Your task to perform on an android device: Clear the cart on amazon. Search for jbl charge 4 on amazon, select the first entry, add it to the cart, then select checkout. Image 0: 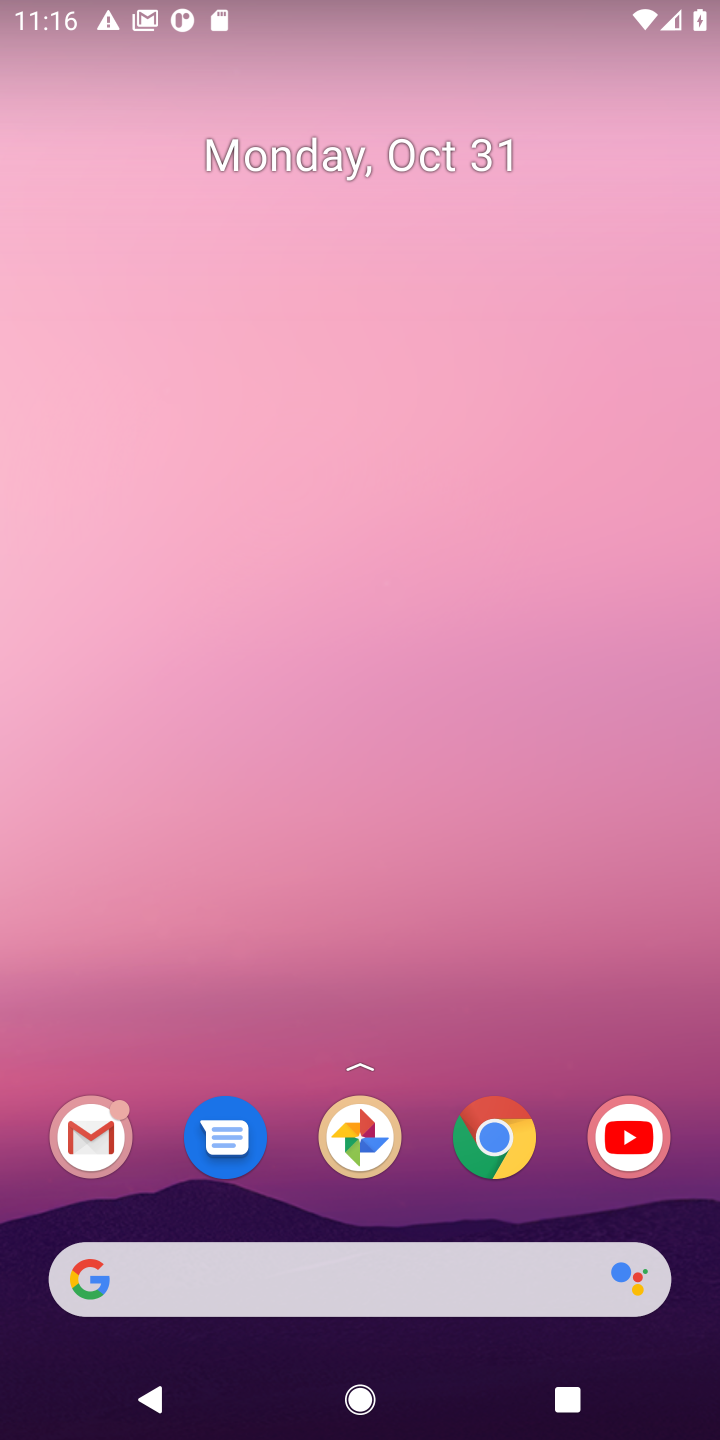
Step 0: drag from (364, 1300) to (405, 185)
Your task to perform on an android device: Clear the cart on amazon. Search for jbl charge 4 on amazon, select the first entry, add it to the cart, then select checkout. Image 1: 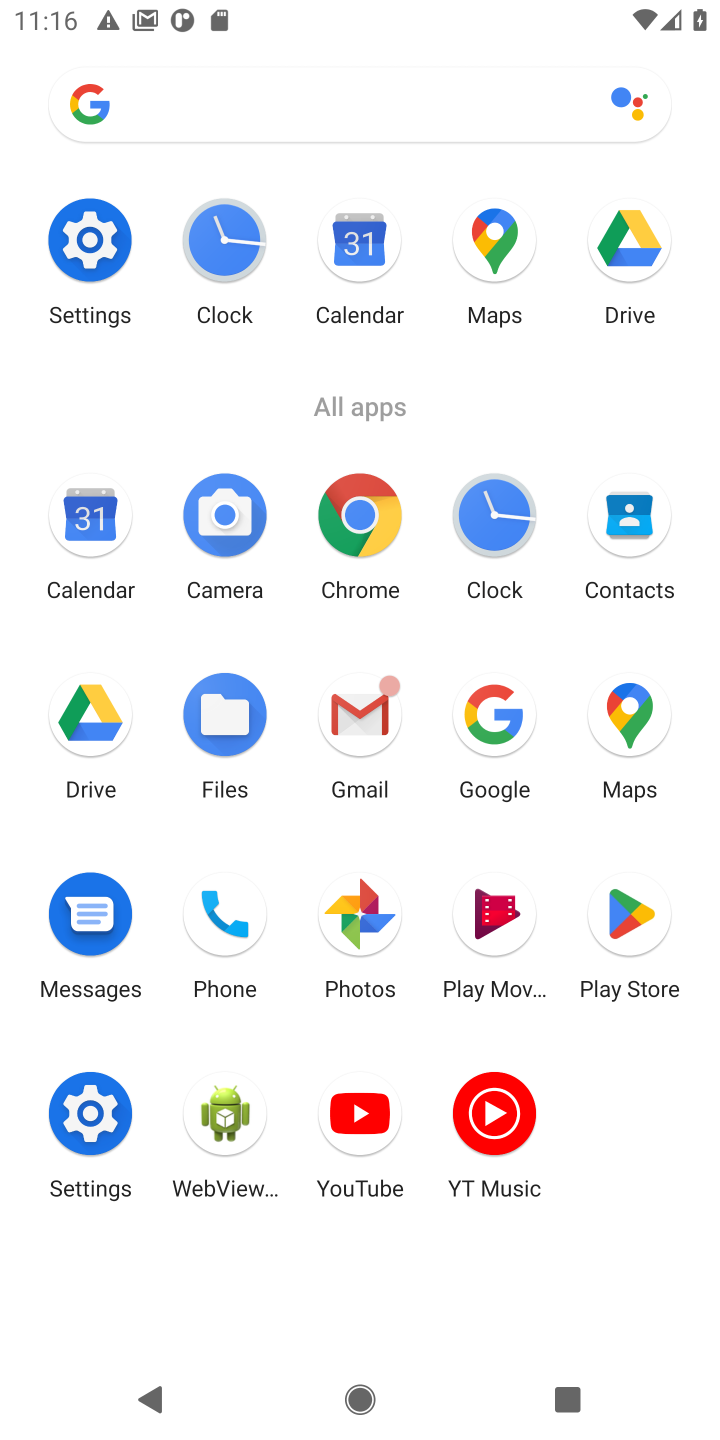
Step 1: click (505, 695)
Your task to perform on an android device: Clear the cart on amazon. Search for jbl charge 4 on amazon, select the first entry, add it to the cart, then select checkout. Image 2: 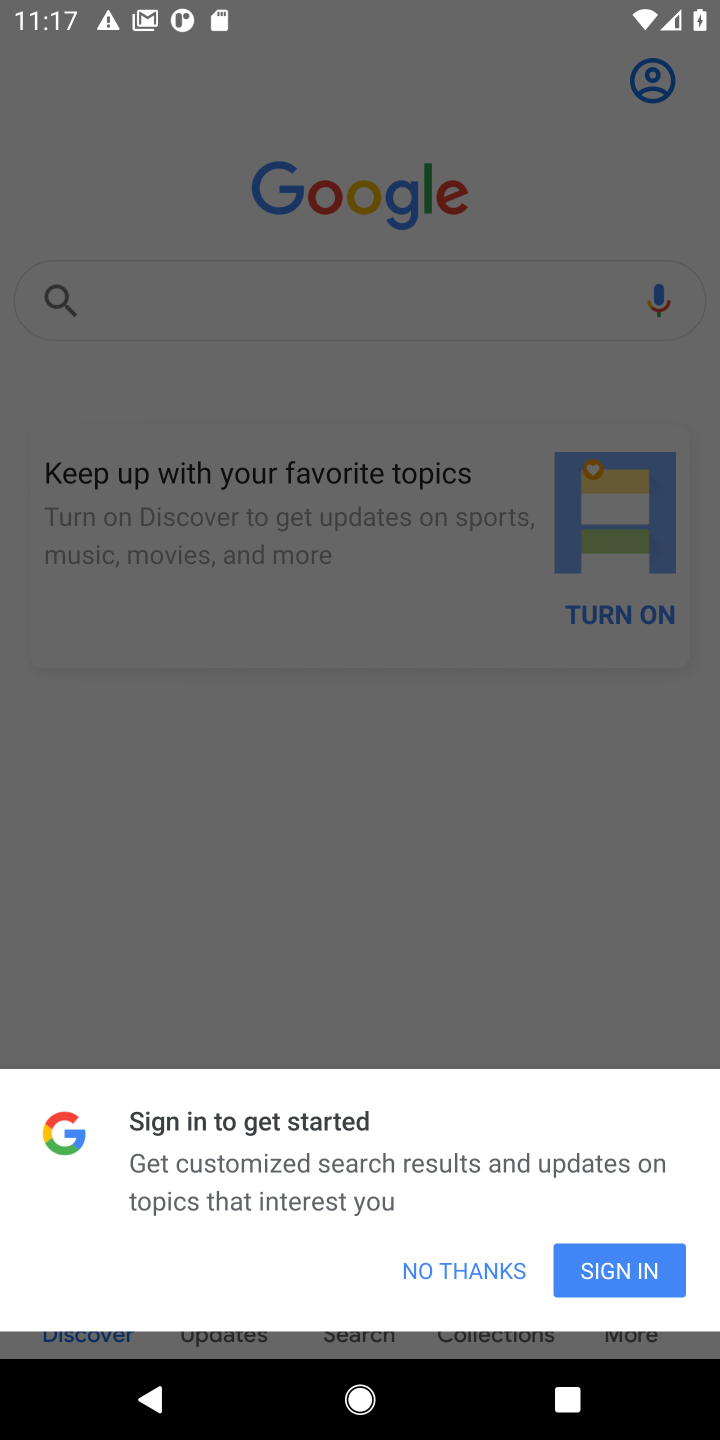
Step 2: click (452, 1260)
Your task to perform on an android device: Clear the cart on amazon. Search for jbl charge 4 on amazon, select the first entry, add it to the cart, then select checkout. Image 3: 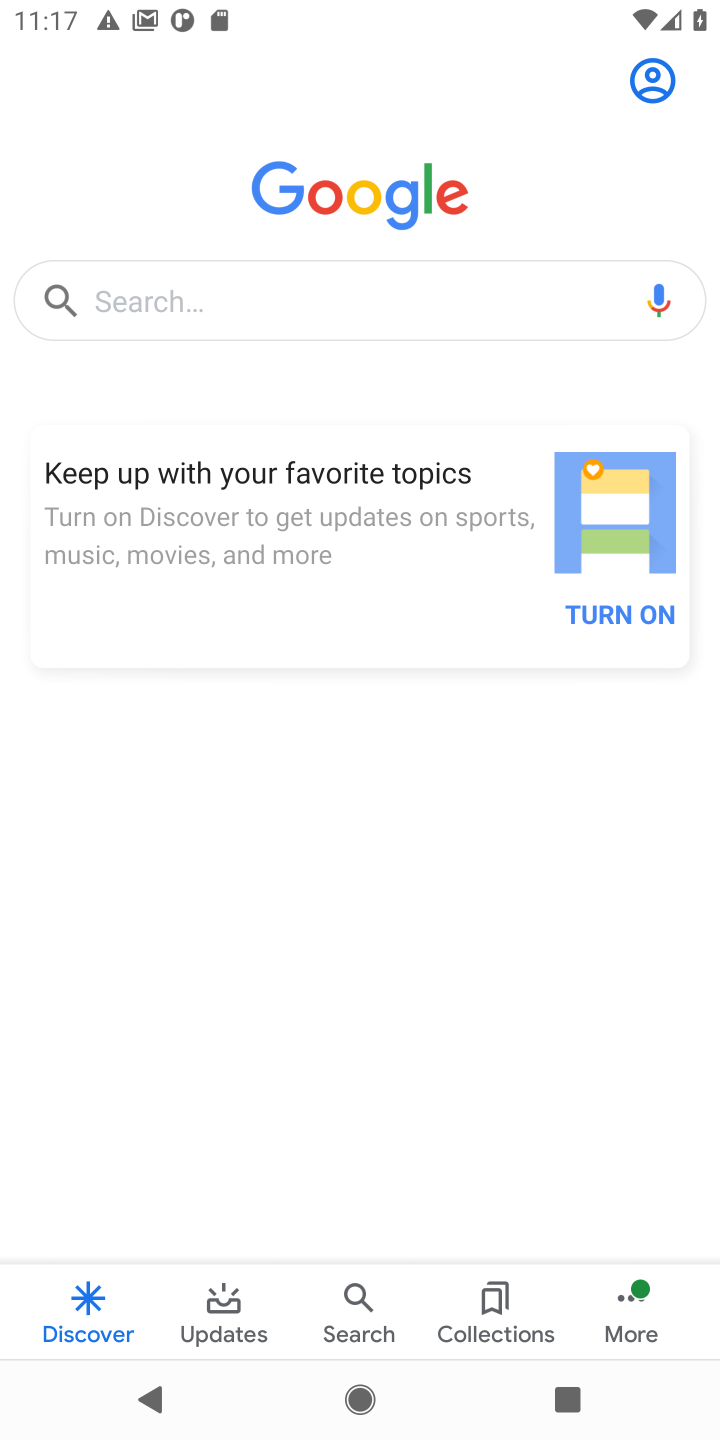
Step 3: click (230, 314)
Your task to perform on an android device: Clear the cart on amazon. Search for jbl charge 4 on amazon, select the first entry, add it to the cart, then select checkout. Image 4: 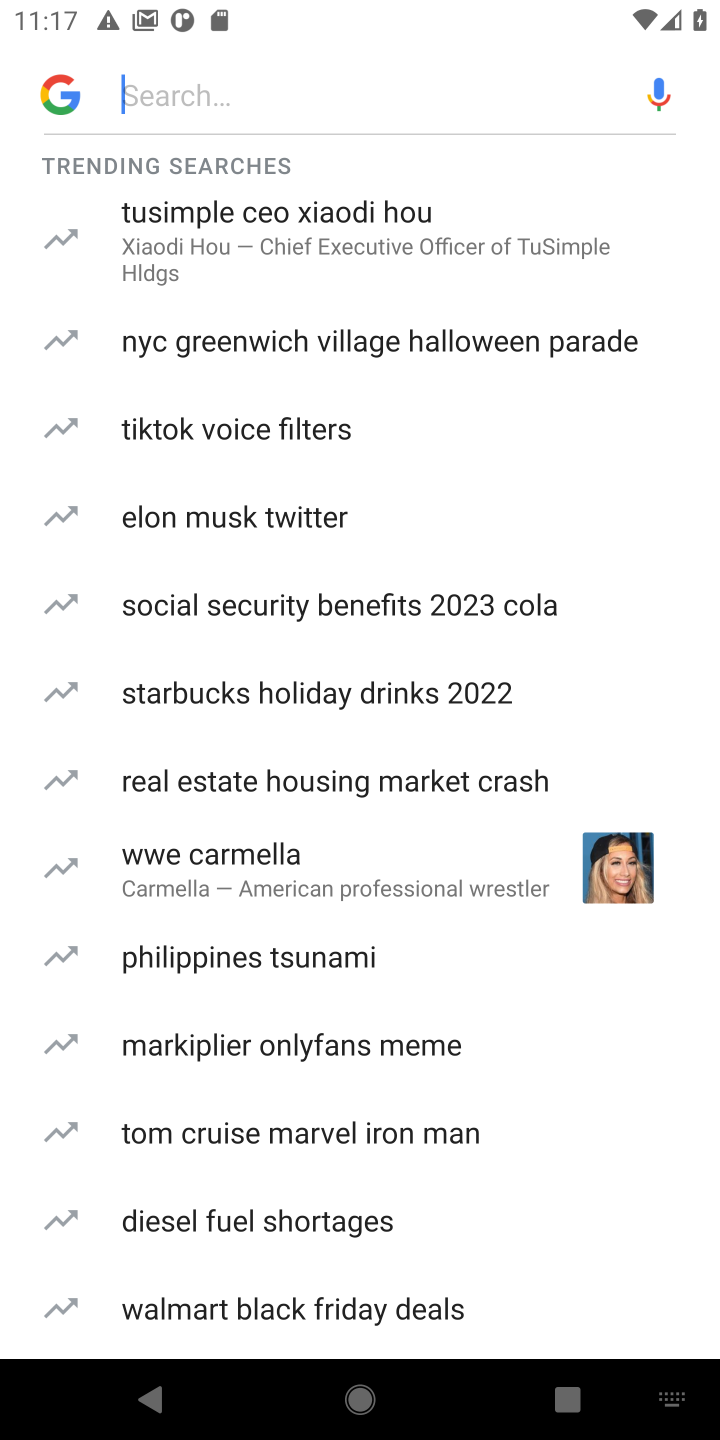
Step 4: type "amazon"
Your task to perform on an android device: Clear the cart on amazon. Search for jbl charge 4 on amazon, select the first entry, add it to the cart, then select checkout. Image 5: 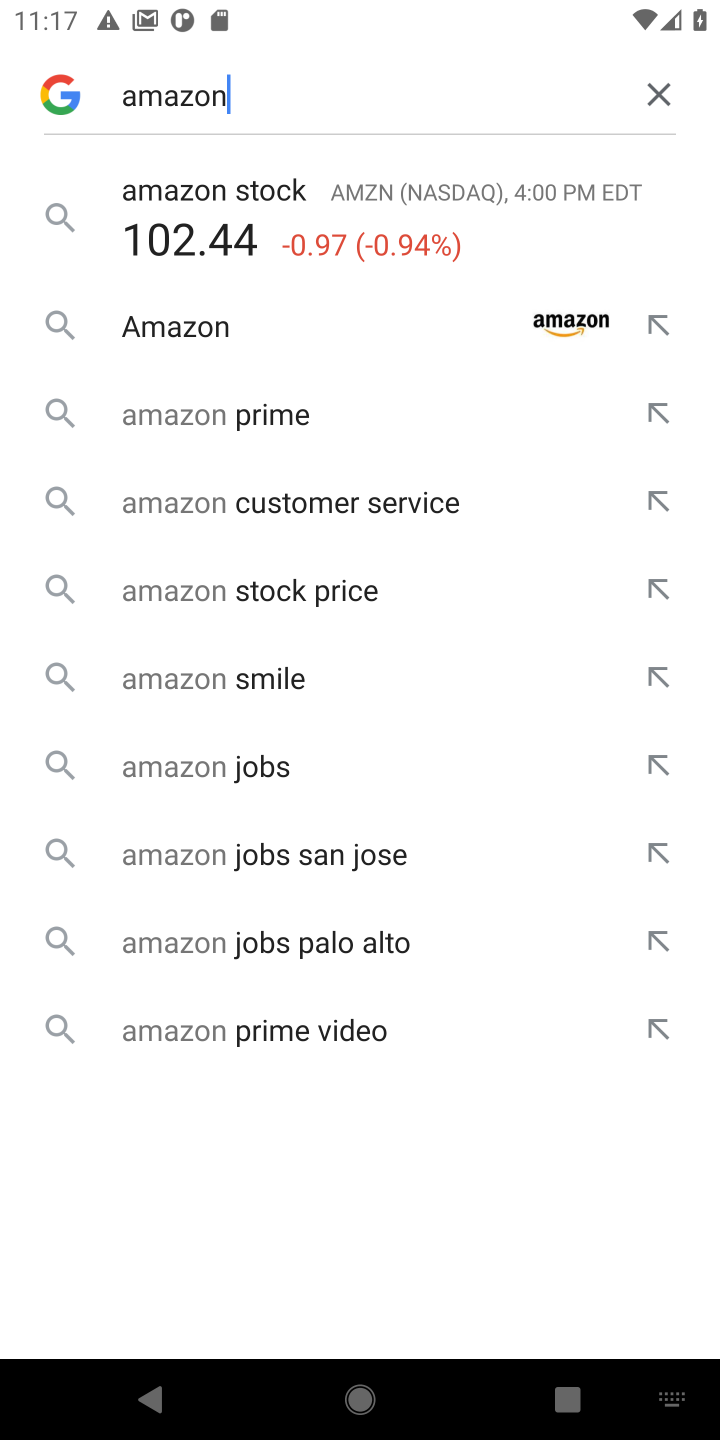
Step 5: click (186, 328)
Your task to perform on an android device: Clear the cart on amazon. Search for jbl charge 4 on amazon, select the first entry, add it to the cart, then select checkout. Image 6: 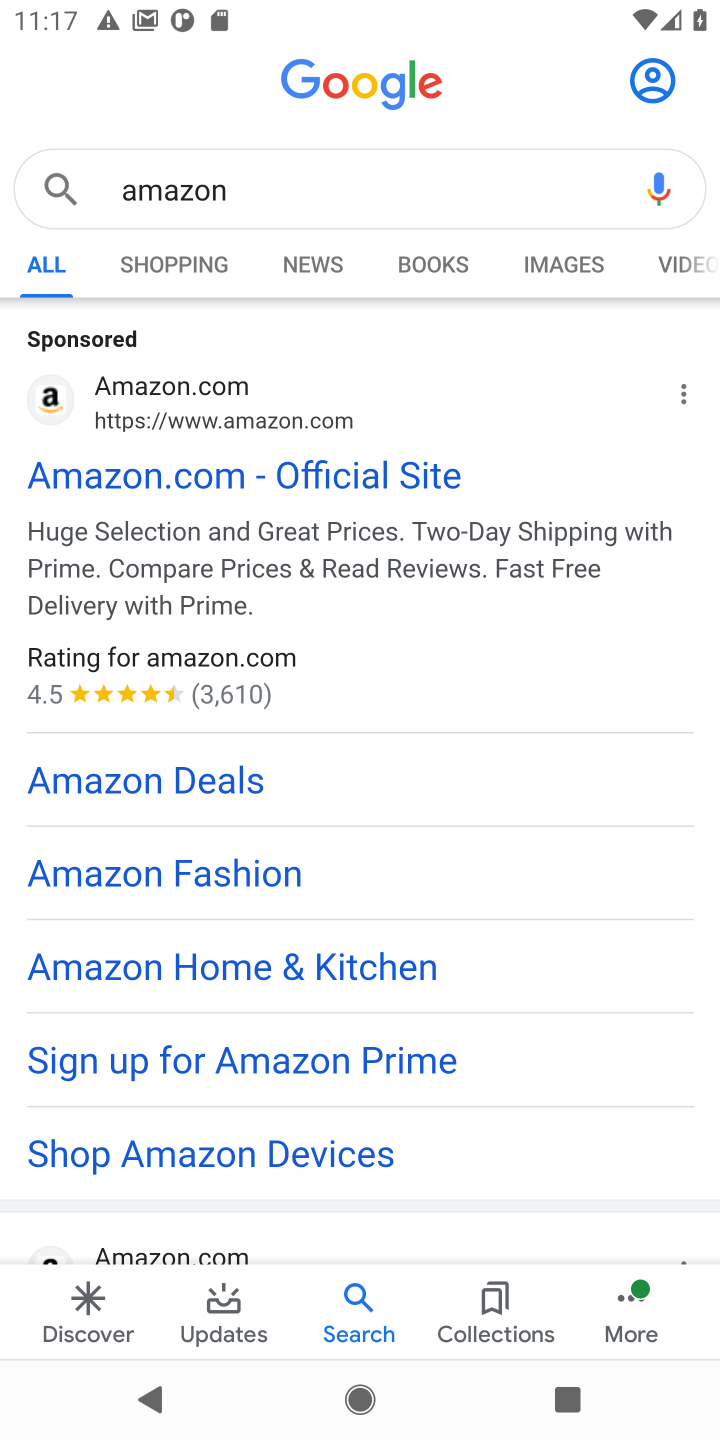
Step 6: click (197, 465)
Your task to perform on an android device: Clear the cart on amazon. Search for jbl charge 4 on amazon, select the first entry, add it to the cart, then select checkout. Image 7: 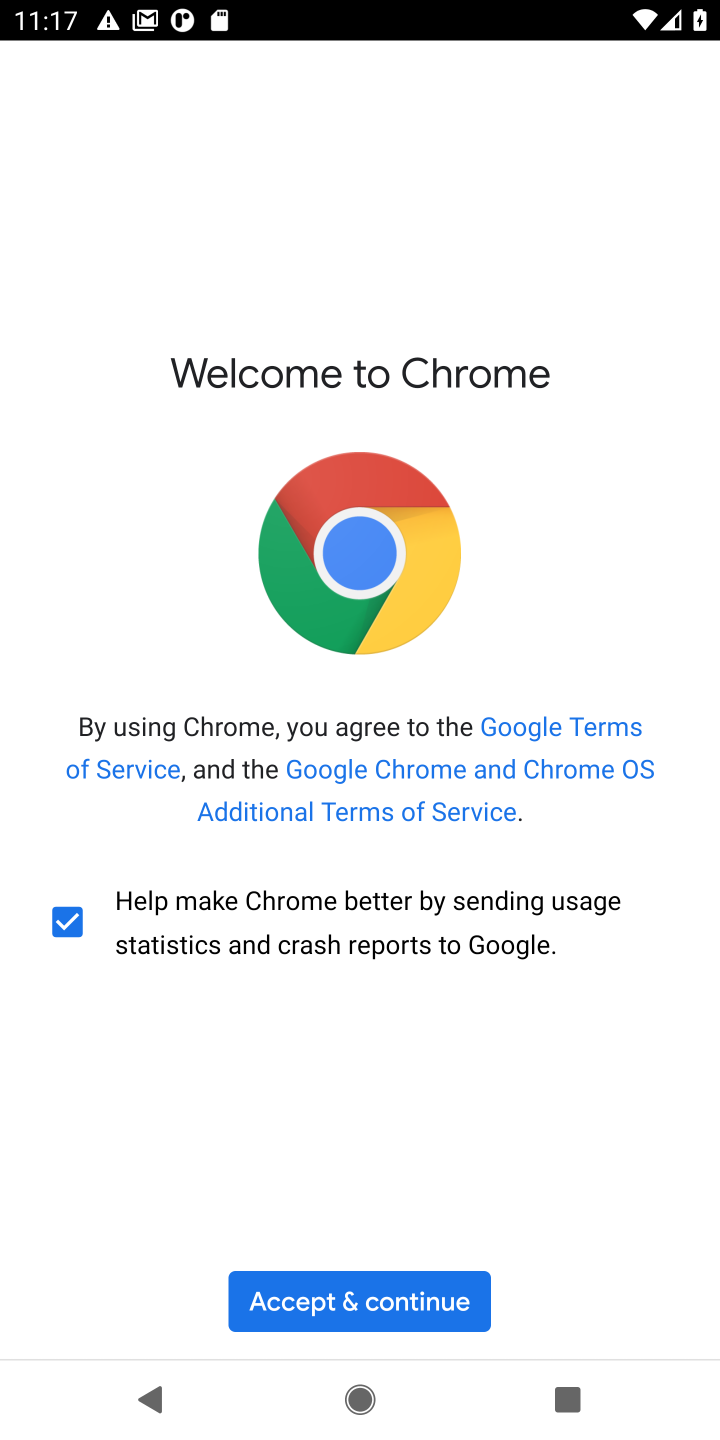
Step 7: click (448, 1298)
Your task to perform on an android device: Clear the cart on amazon. Search for jbl charge 4 on amazon, select the first entry, add it to the cart, then select checkout. Image 8: 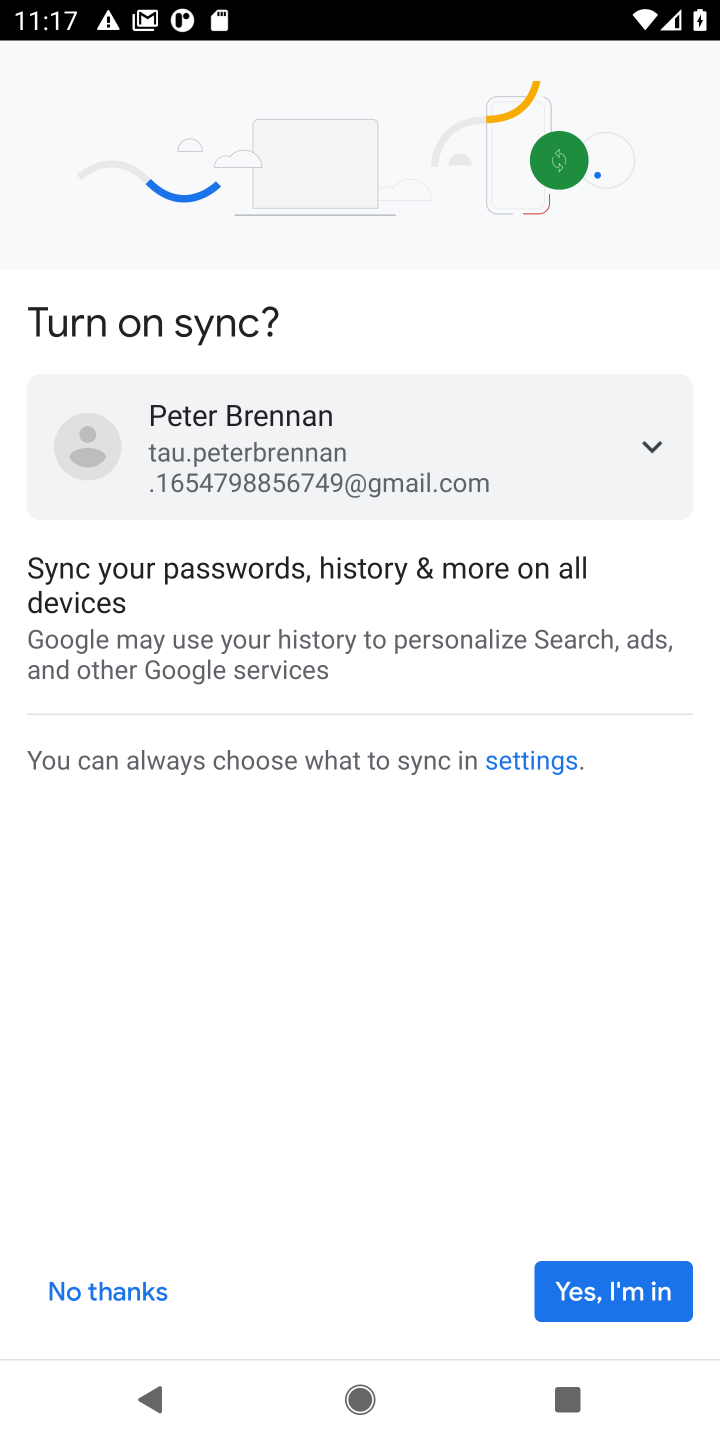
Step 8: click (576, 1283)
Your task to perform on an android device: Clear the cart on amazon. Search for jbl charge 4 on amazon, select the first entry, add it to the cart, then select checkout. Image 9: 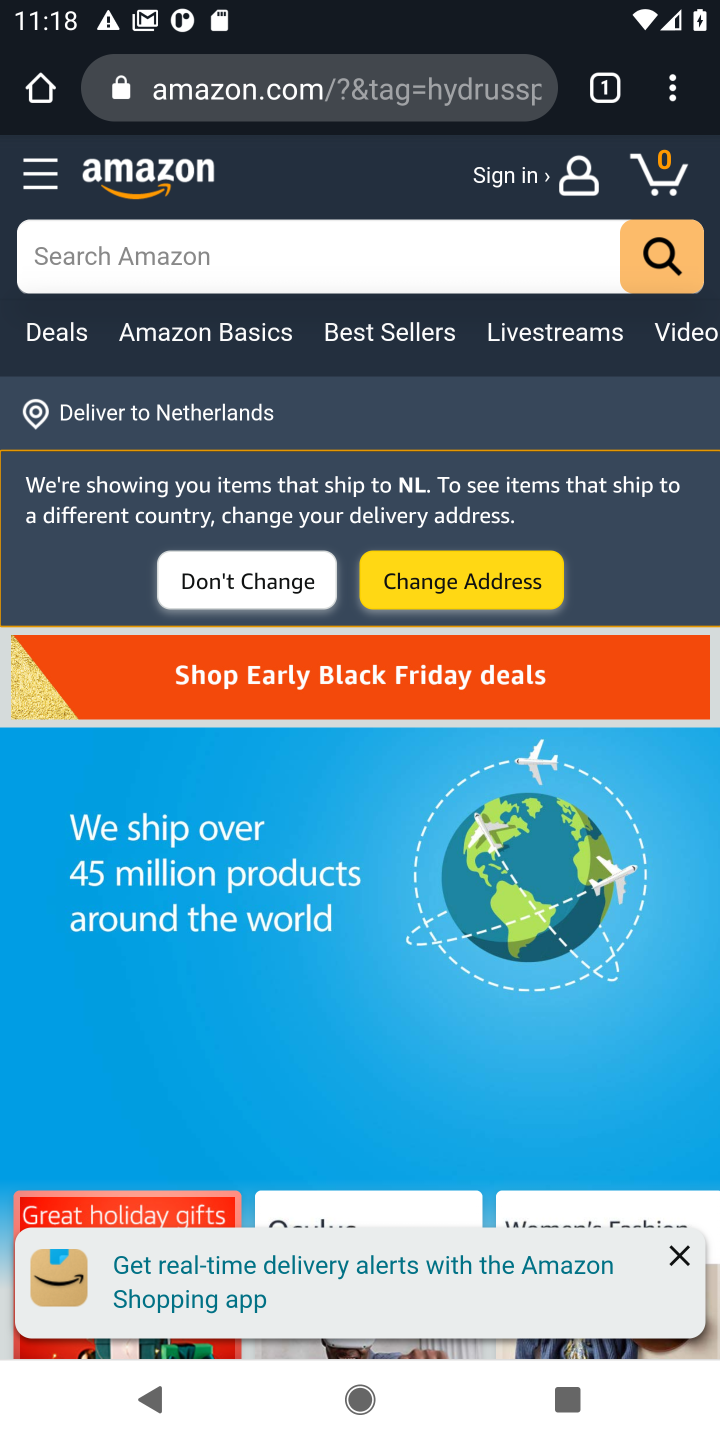
Step 9: click (393, 234)
Your task to perform on an android device: Clear the cart on amazon. Search for jbl charge 4 on amazon, select the first entry, add it to the cart, then select checkout. Image 10: 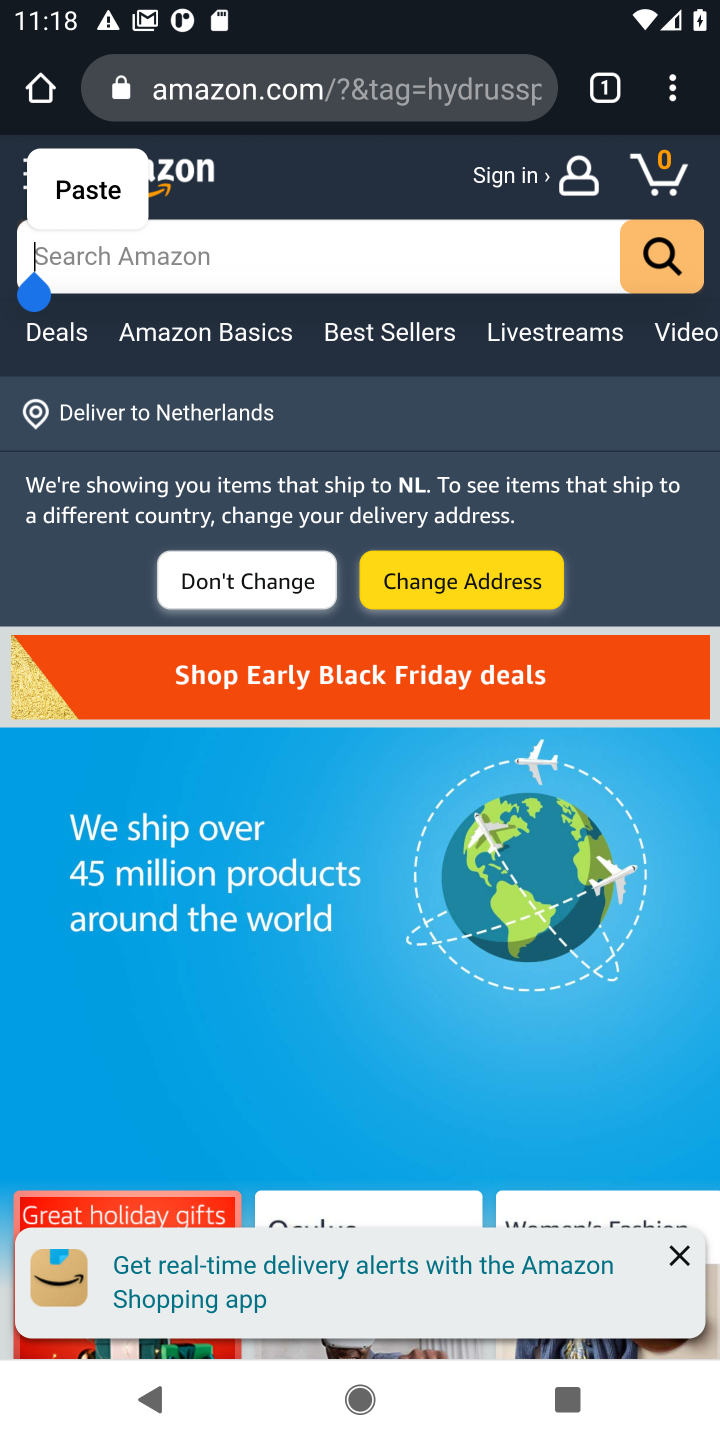
Step 10: type "jbl charge 4"
Your task to perform on an android device: Clear the cart on amazon. Search for jbl charge 4 on amazon, select the first entry, add it to the cart, then select checkout. Image 11: 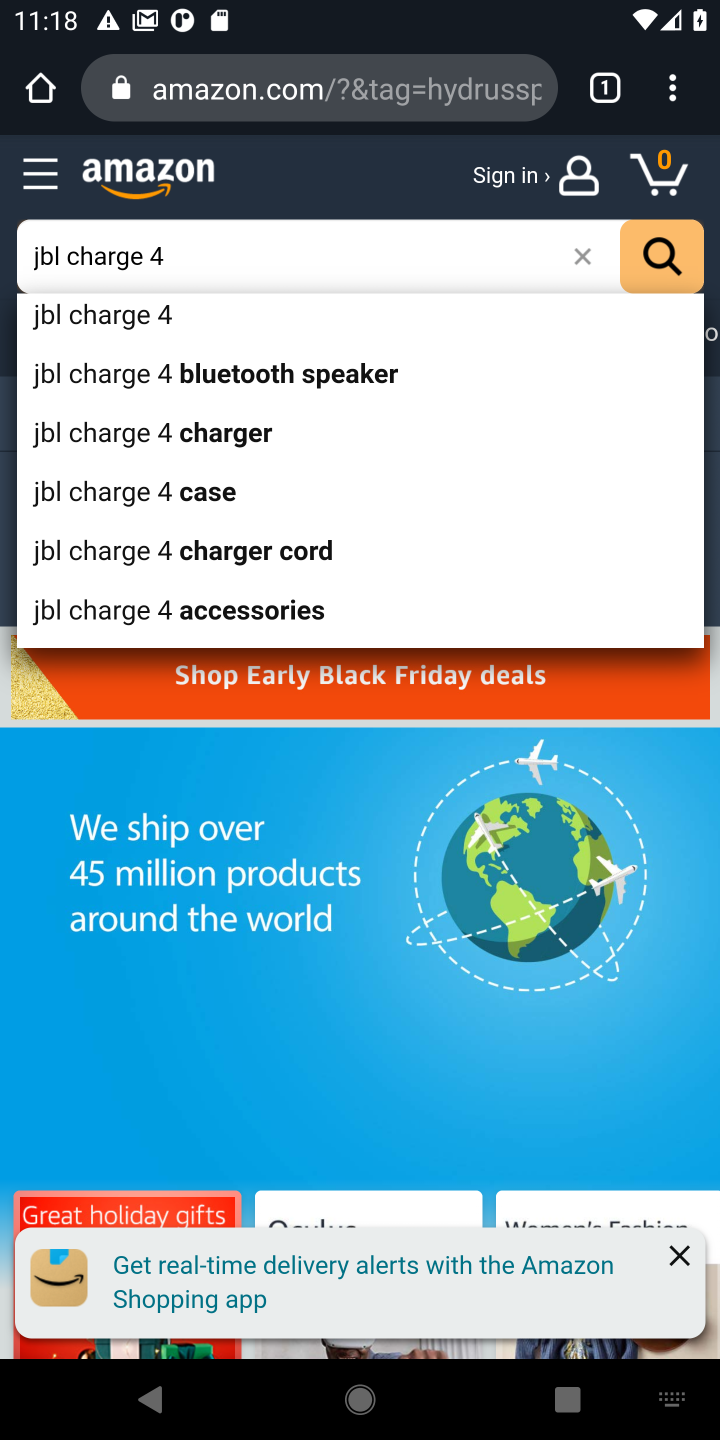
Step 11: click (124, 317)
Your task to perform on an android device: Clear the cart on amazon. Search for jbl charge 4 on amazon, select the first entry, add it to the cart, then select checkout. Image 12: 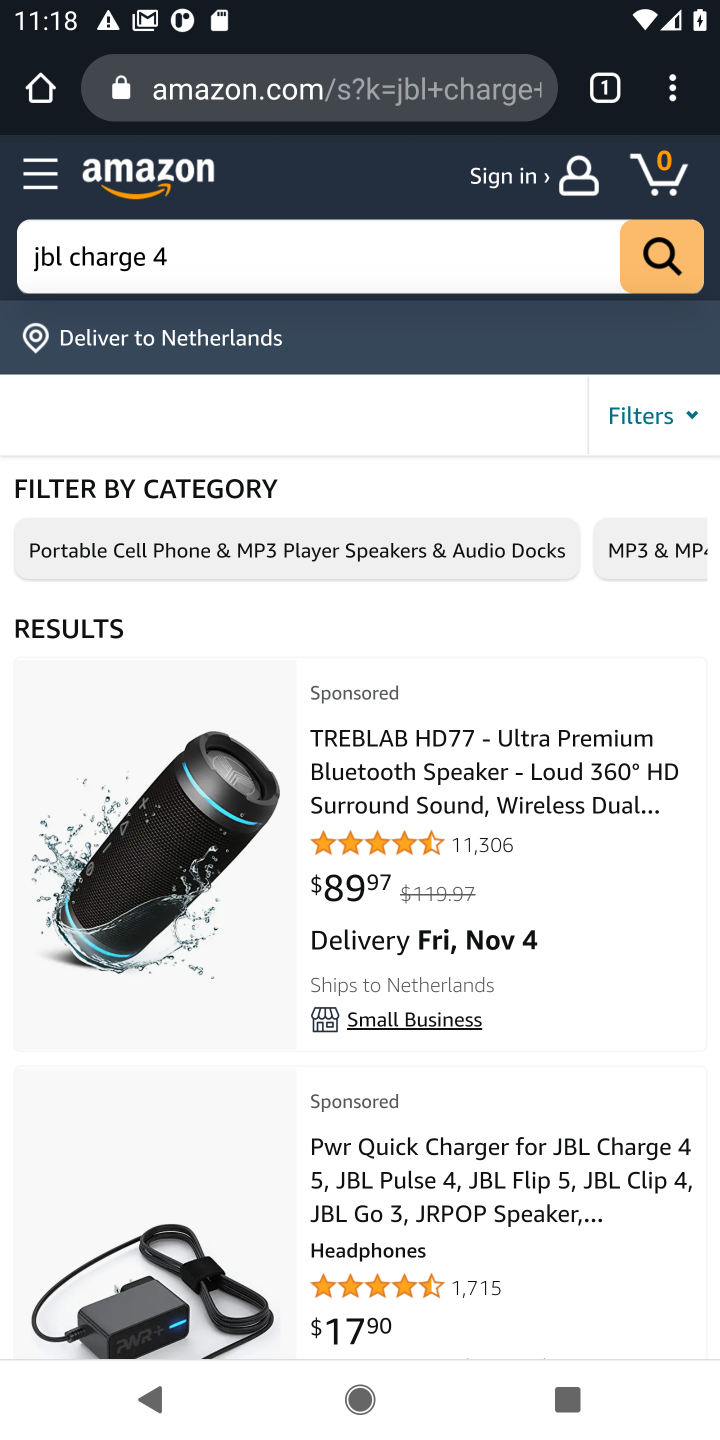
Step 12: drag from (443, 1251) to (393, 695)
Your task to perform on an android device: Clear the cart on amazon. Search for jbl charge 4 on amazon, select the first entry, add it to the cart, then select checkout. Image 13: 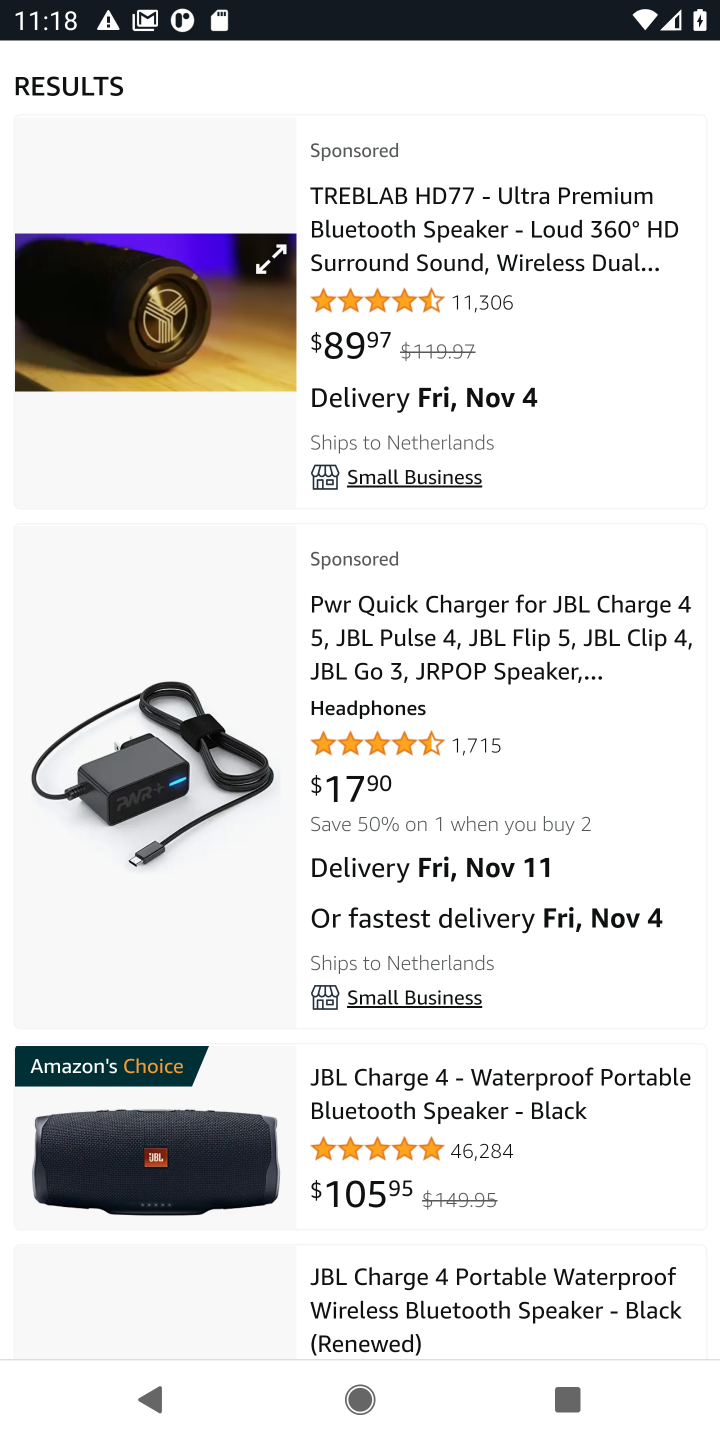
Step 13: drag from (413, 252) to (438, 927)
Your task to perform on an android device: Clear the cart on amazon. Search for jbl charge 4 on amazon, select the first entry, add it to the cart, then select checkout. Image 14: 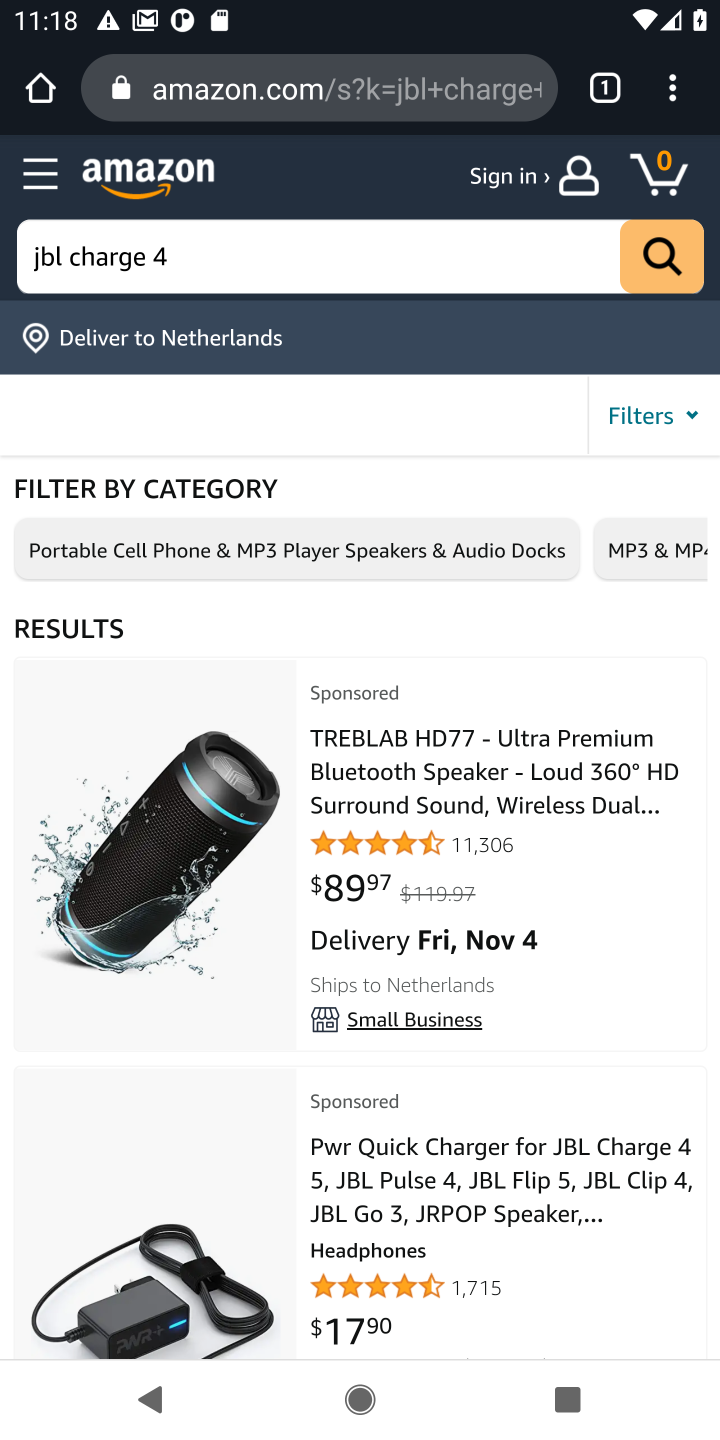
Step 14: click (421, 795)
Your task to perform on an android device: Clear the cart on amazon. Search for jbl charge 4 on amazon, select the first entry, add it to the cart, then select checkout. Image 15: 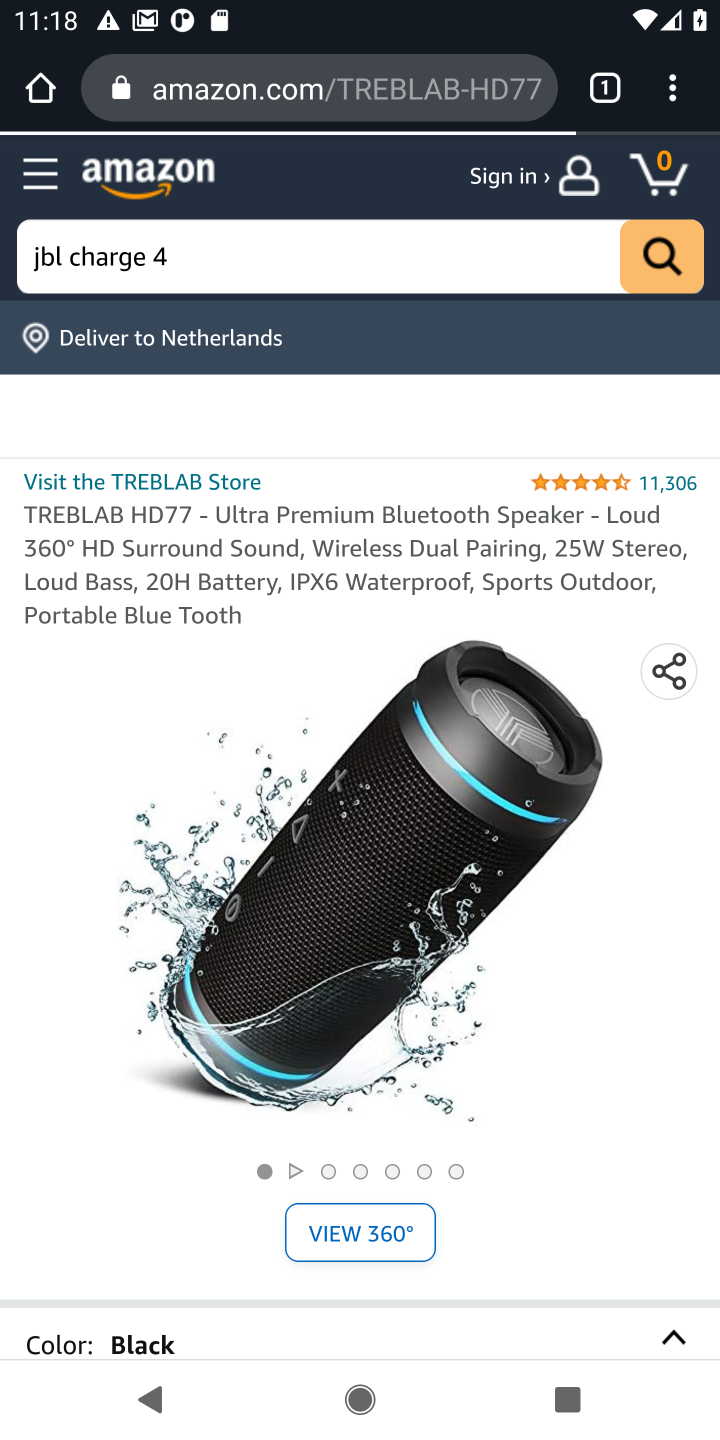
Step 15: drag from (513, 1208) to (513, 558)
Your task to perform on an android device: Clear the cart on amazon. Search for jbl charge 4 on amazon, select the first entry, add it to the cart, then select checkout. Image 16: 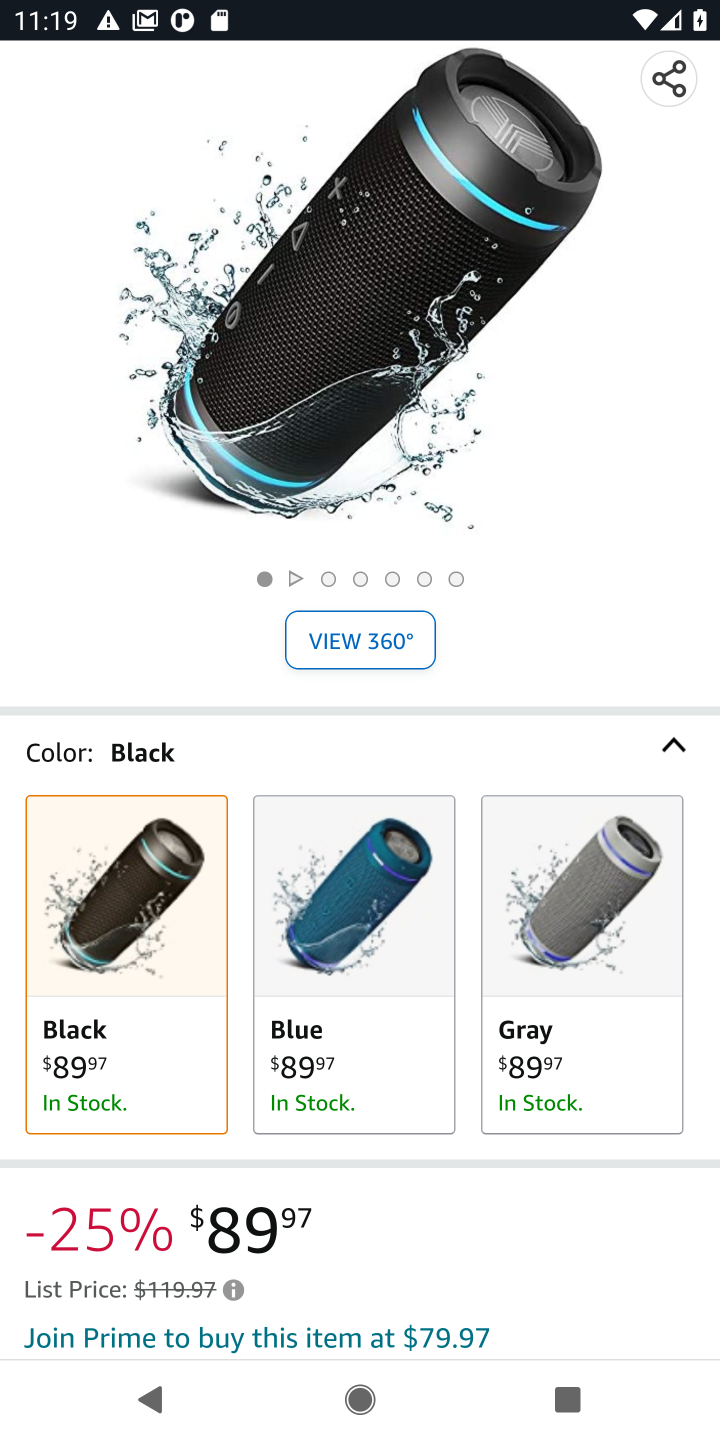
Step 16: drag from (396, 1213) to (408, 591)
Your task to perform on an android device: Clear the cart on amazon. Search for jbl charge 4 on amazon, select the first entry, add it to the cart, then select checkout. Image 17: 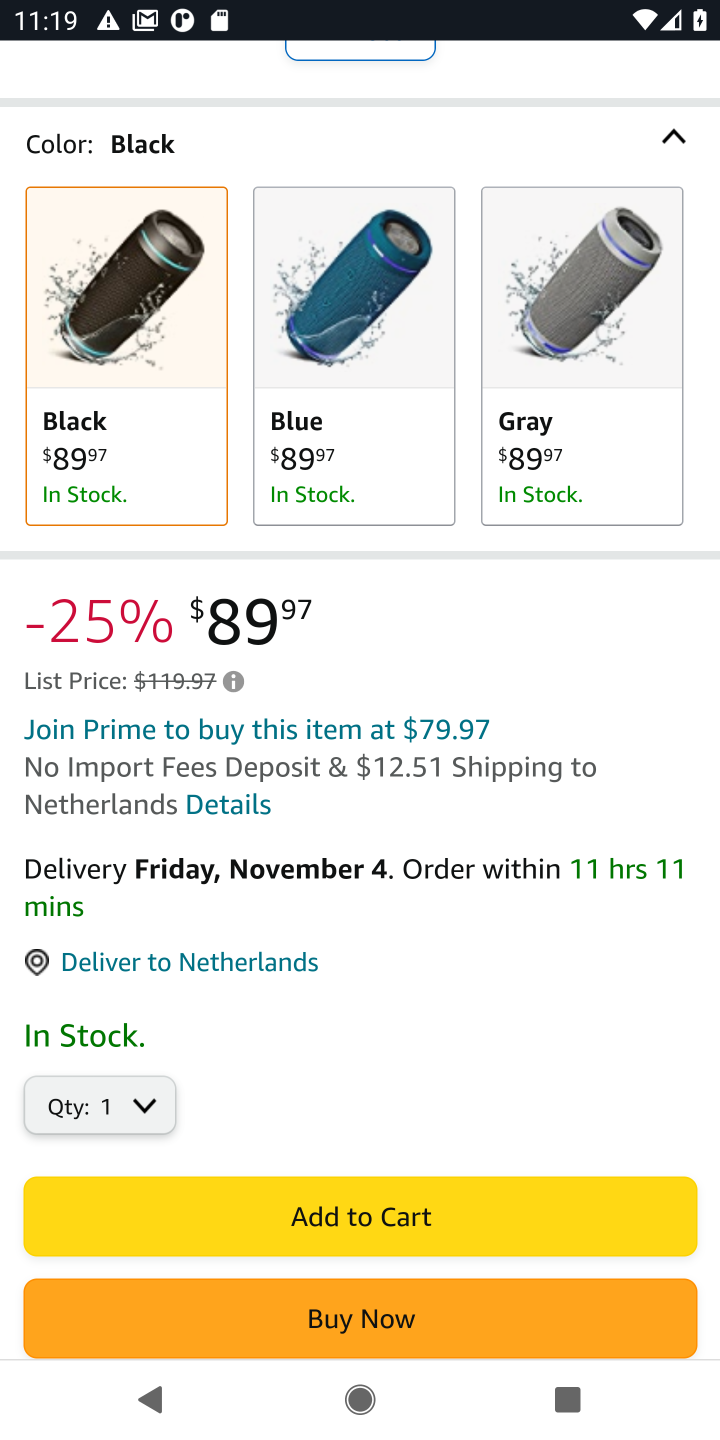
Step 17: click (343, 1216)
Your task to perform on an android device: Clear the cart on amazon. Search for jbl charge 4 on amazon, select the first entry, add it to the cart, then select checkout. Image 18: 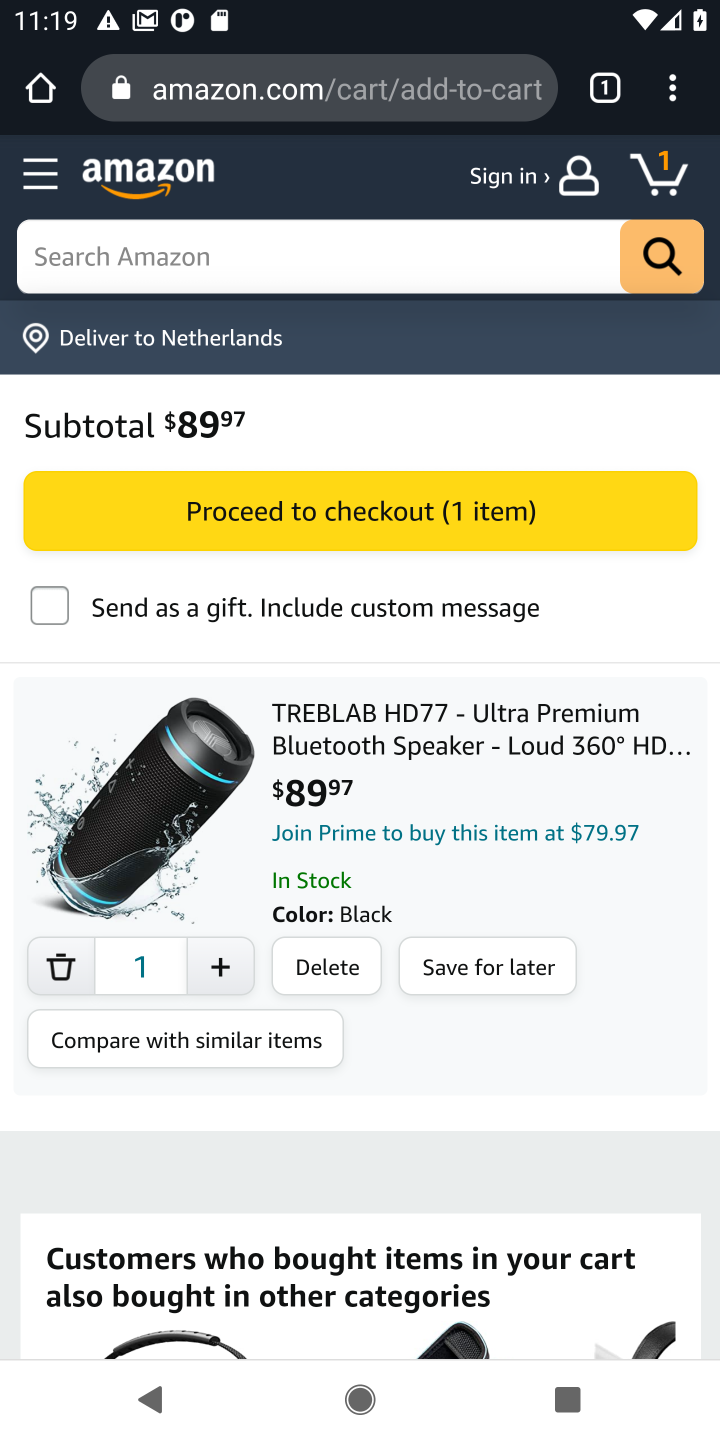
Step 18: click (671, 171)
Your task to perform on an android device: Clear the cart on amazon. Search for jbl charge 4 on amazon, select the first entry, add it to the cart, then select checkout. Image 19: 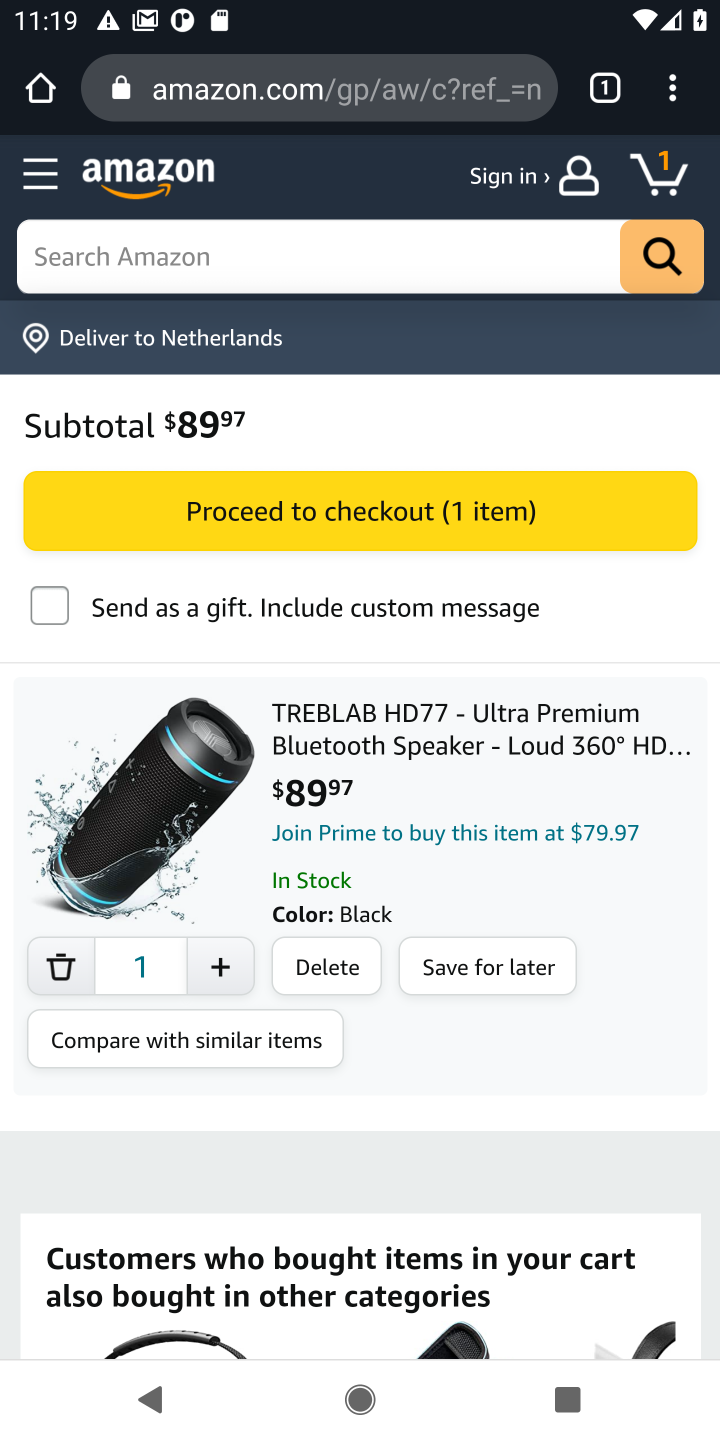
Step 19: click (661, 168)
Your task to perform on an android device: Clear the cart on amazon. Search for jbl charge 4 on amazon, select the first entry, add it to the cart, then select checkout. Image 20: 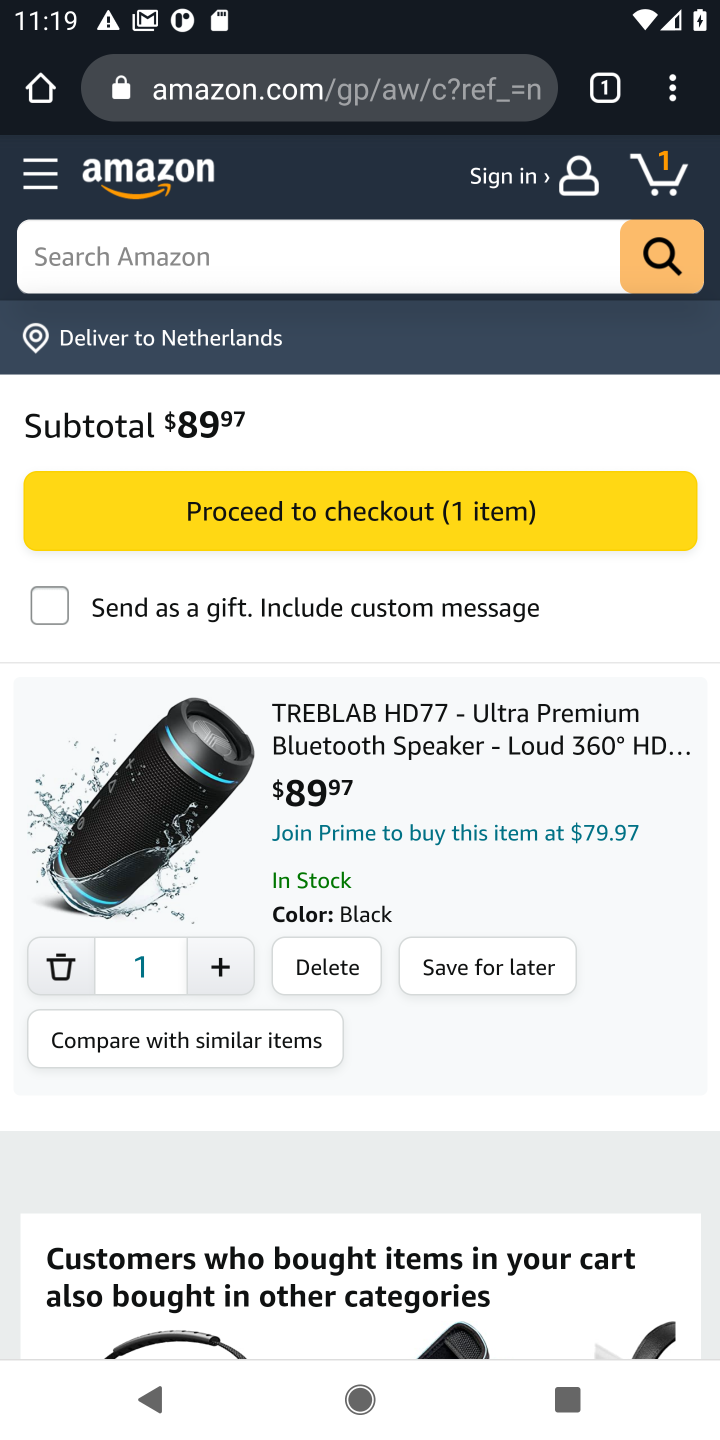
Step 20: task complete